Your task to perform on an android device: Search for handmade jewelry on Etsy. Image 0: 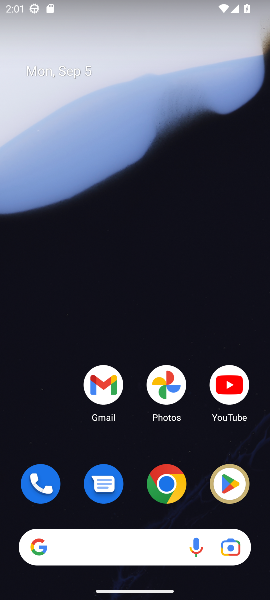
Step 0: click (171, 493)
Your task to perform on an android device: Search for handmade jewelry on Etsy. Image 1: 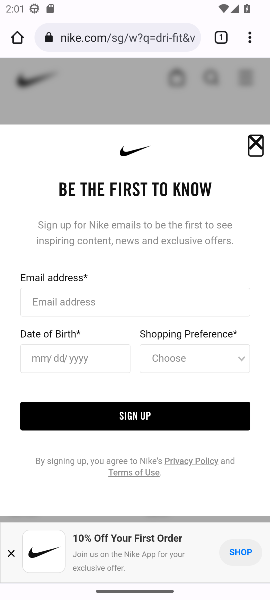
Step 1: click (133, 35)
Your task to perform on an android device: Search for handmade jewelry on Etsy. Image 2: 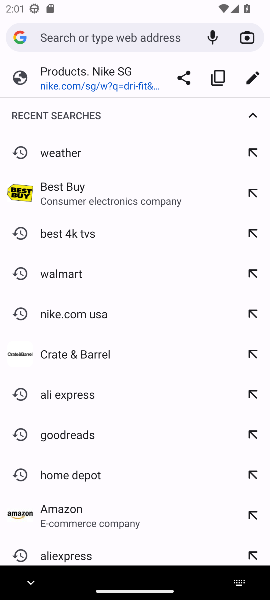
Step 2: type "Etsy"
Your task to perform on an android device: Search for handmade jewelry on Etsy. Image 3: 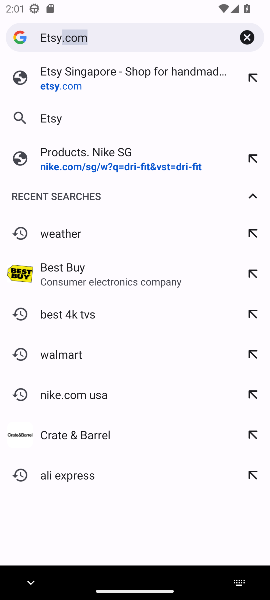
Step 3: press enter
Your task to perform on an android device: Search for handmade jewelry on Etsy. Image 4: 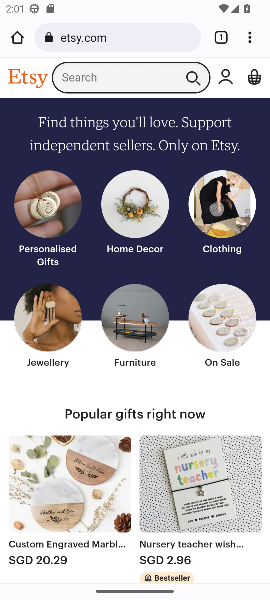
Step 4: click (117, 72)
Your task to perform on an android device: Search for handmade jewelry on Etsy. Image 5: 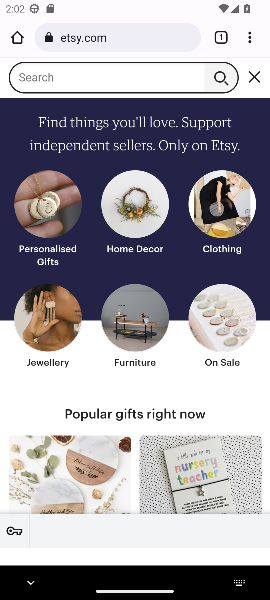
Step 5: type "handmade jewelry"
Your task to perform on an android device: Search for handmade jewelry on Etsy. Image 6: 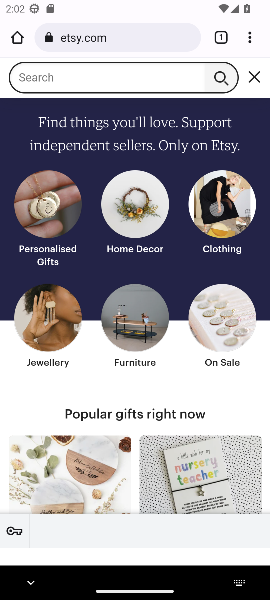
Step 6: press enter
Your task to perform on an android device: Search for handmade jewelry on Etsy. Image 7: 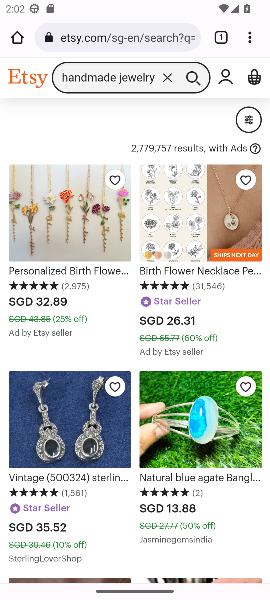
Step 7: task complete